Your task to perform on an android device: What's the weather? Image 0: 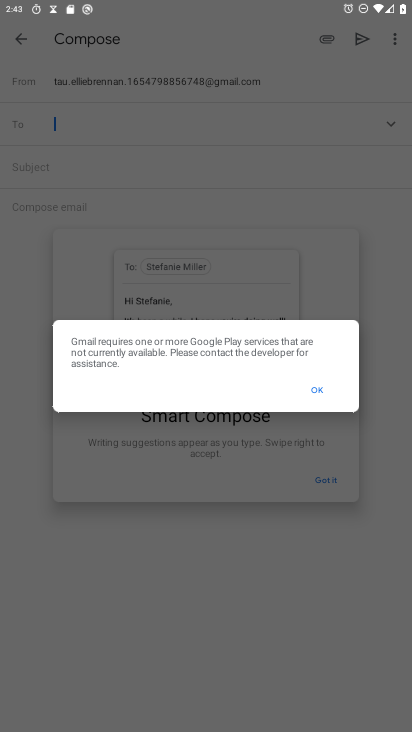
Step 0: press home button
Your task to perform on an android device: What's the weather? Image 1: 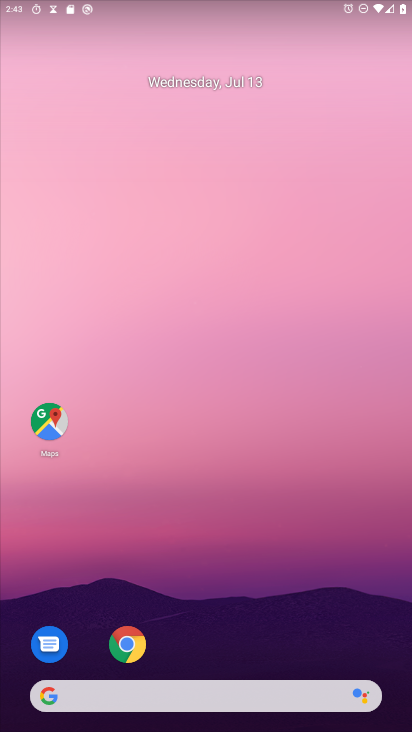
Step 1: click (241, 693)
Your task to perform on an android device: What's the weather? Image 2: 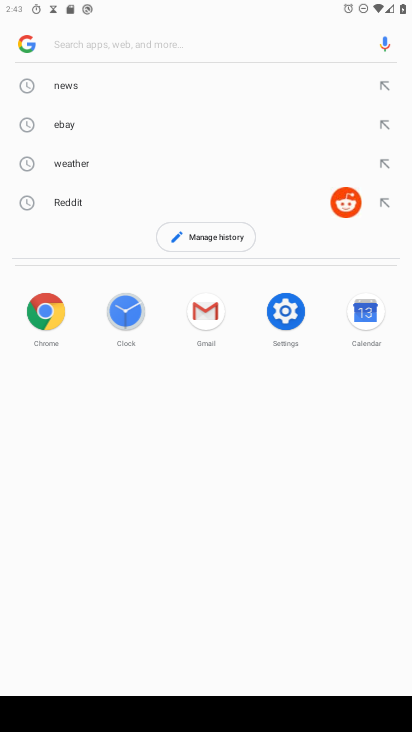
Step 2: click (80, 163)
Your task to perform on an android device: What's the weather? Image 3: 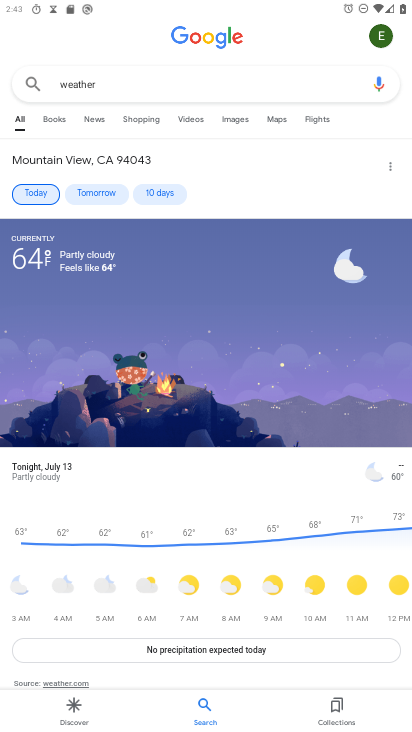
Step 3: task complete